Your task to perform on an android device: View the shopping cart on ebay. Search for "macbook pro 13 inch" on ebay, select the first entry, and add it to the cart. Image 0: 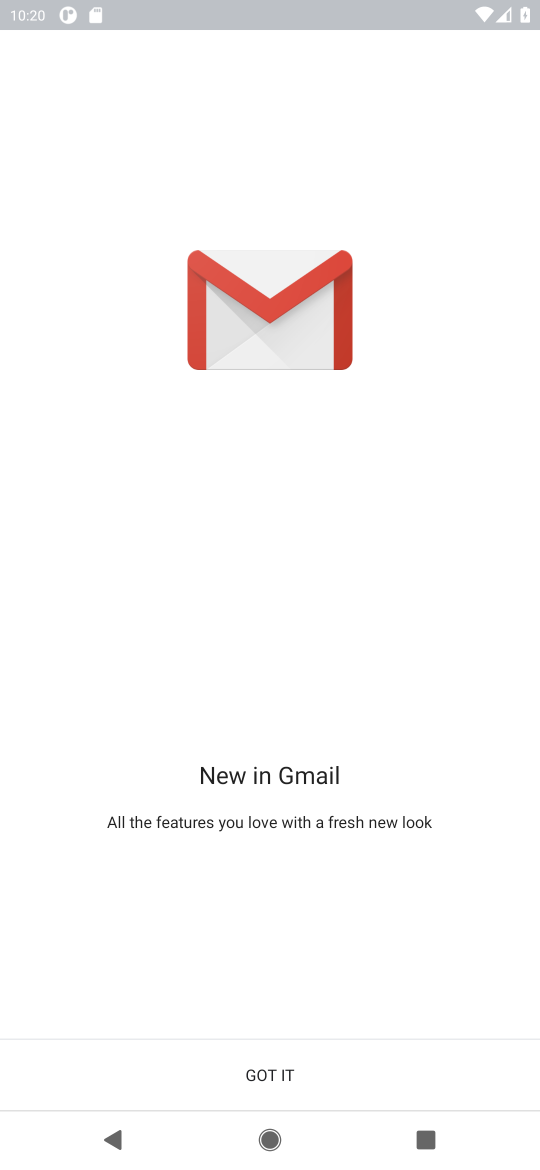
Step 0: press home button
Your task to perform on an android device: View the shopping cart on ebay. Search for "macbook pro 13 inch" on ebay, select the first entry, and add it to the cart. Image 1: 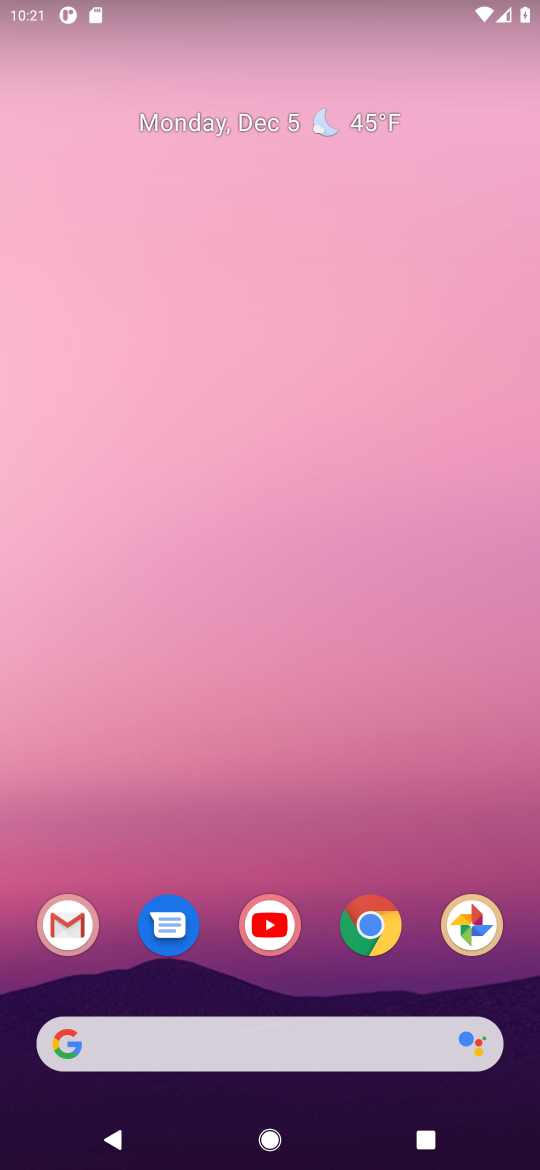
Step 1: click (372, 926)
Your task to perform on an android device: View the shopping cart on ebay. Search for "macbook pro 13 inch" on ebay, select the first entry, and add it to the cart. Image 2: 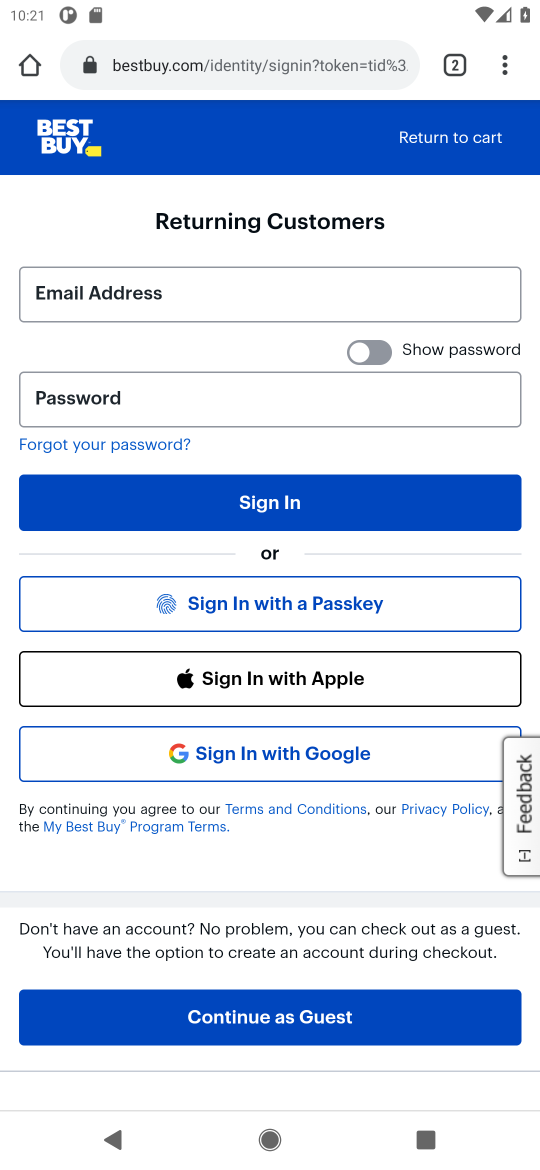
Step 2: click (246, 60)
Your task to perform on an android device: View the shopping cart on ebay. Search for "macbook pro 13 inch" on ebay, select the first entry, and add it to the cart. Image 3: 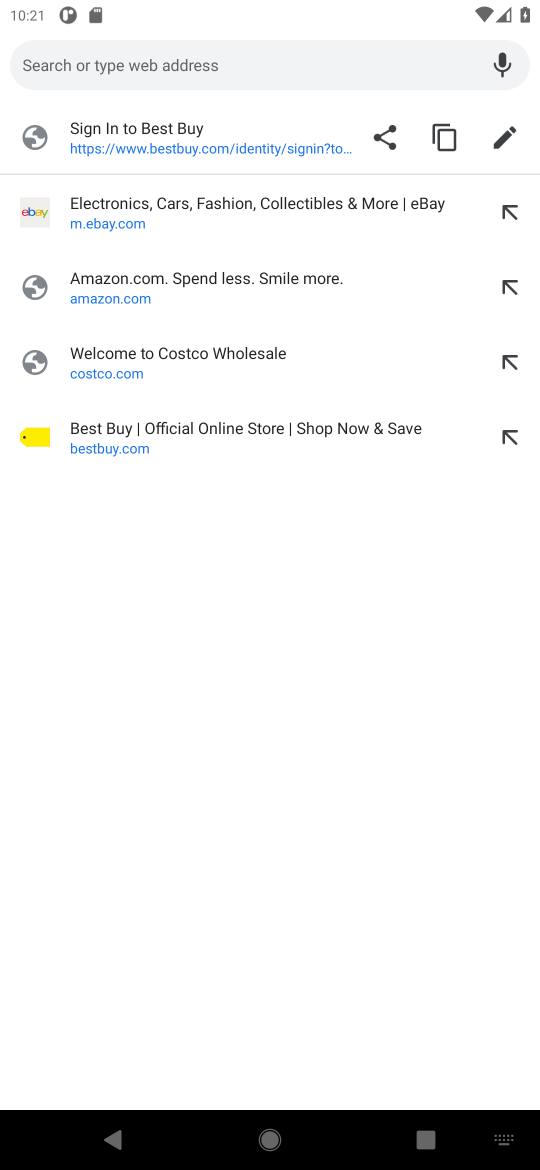
Step 3: click (114, 212)
Your task to perform on an android device: View the shopping cart on ebay. Search for "macbook pro 13 inch" on ebay, select the first entry, and add it to the cart. Image 4: 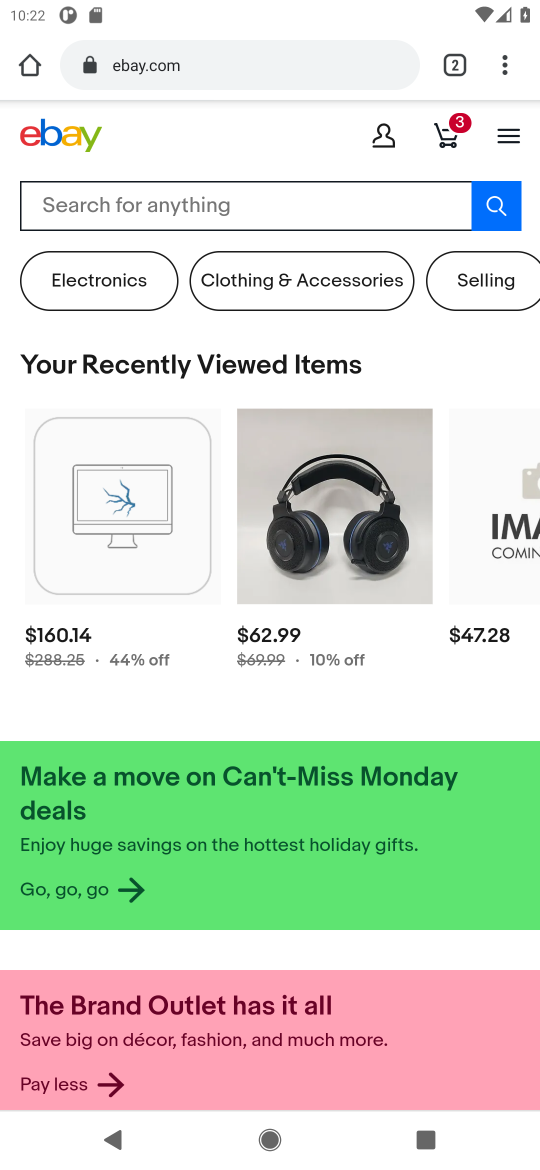
Step 4: click (449, 126)
Your task to perform on an android device: View the shopping cart on ebay. Search for "macbook pro 13 inch" on ebay, select the first entry, and add it to the cart. Image 5: 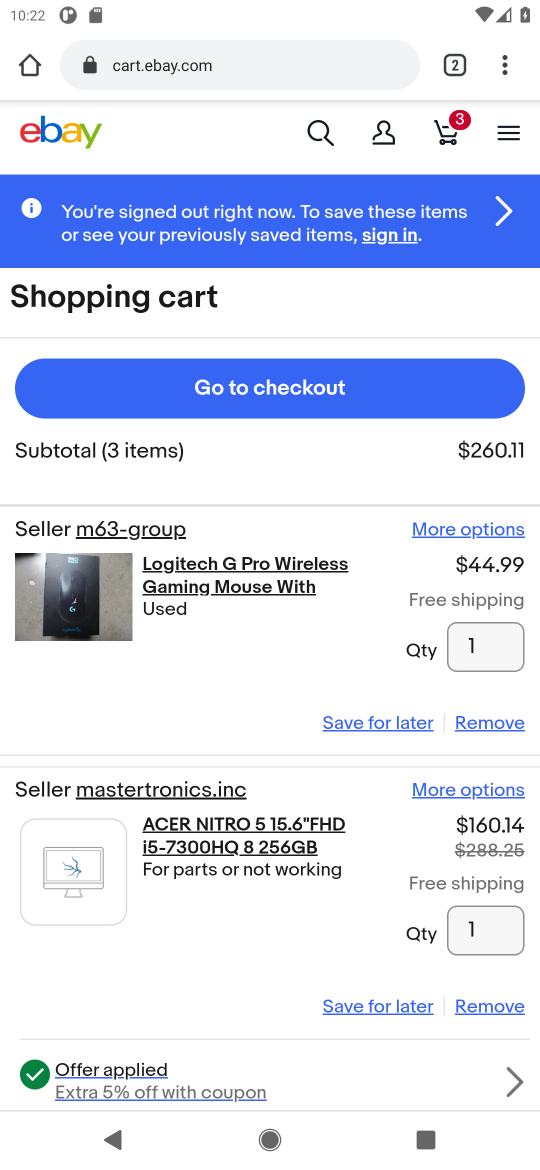
Step 5: click (317, 135)
Your task to perform on an android device: View the shopping cart on ebay. Search for "macbook pro 13 inch" on ebay, select the first entry, and add it to the cart. Image 6: 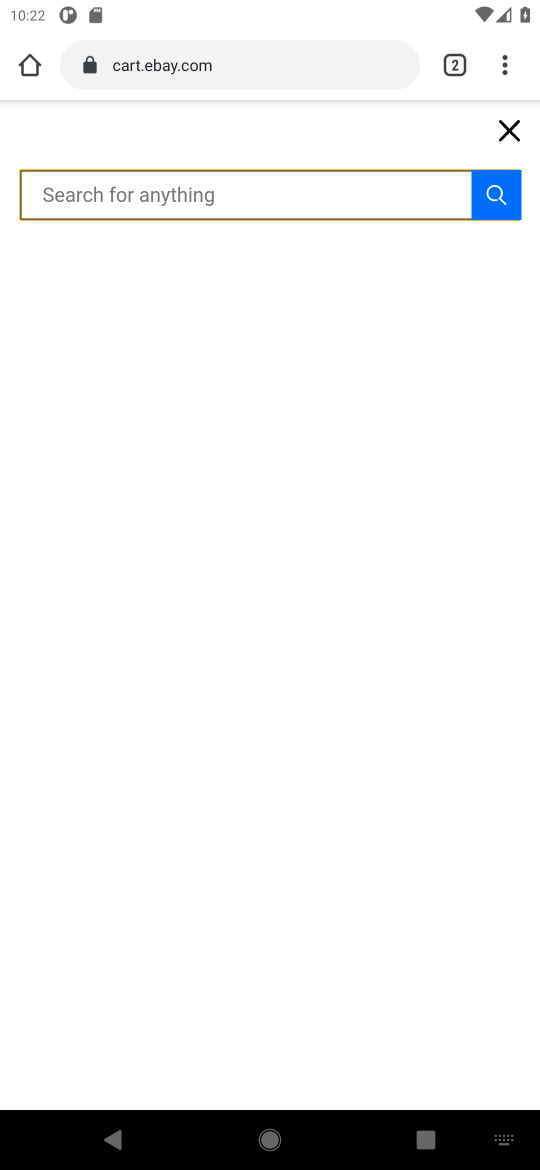
Step 6: type "macbook pro 13 inch"
Your task to perform on an android device: View the shopping cart on ebay. Search for "macbook pro 13 inch" on ebay, select the first entry, and add it to the cart. Image 7: 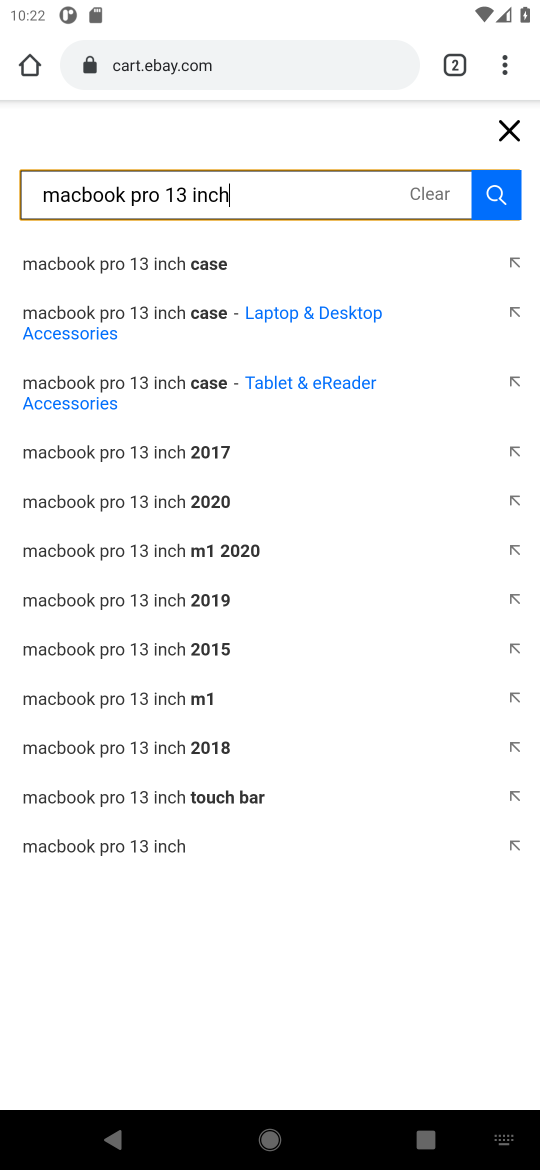
Step 7: click (140, 846)
Your task to perform on an android device: View the shopping cart on ebay. Search for "macbook pro 13 inch" on ebay, select the first entry, and add it to the cart. Image 8: 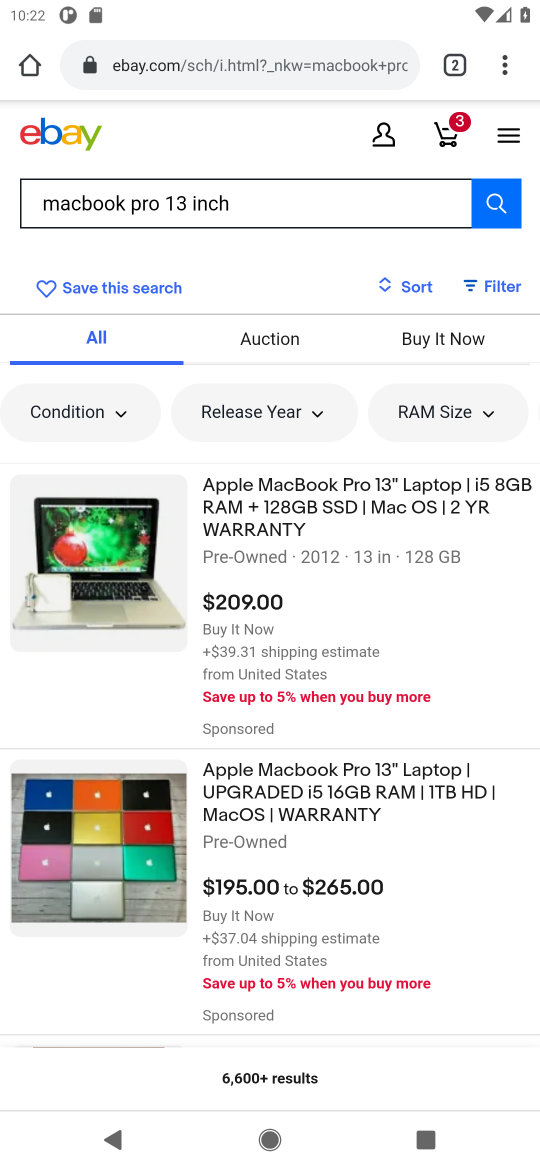
Step 8: click (254, 523)
Your task to perform on an android device: View the shopping cart on ebay. Search for "macbook pro 13 inch" on ebay, select the first entry, and add it to the cart. Image 9: 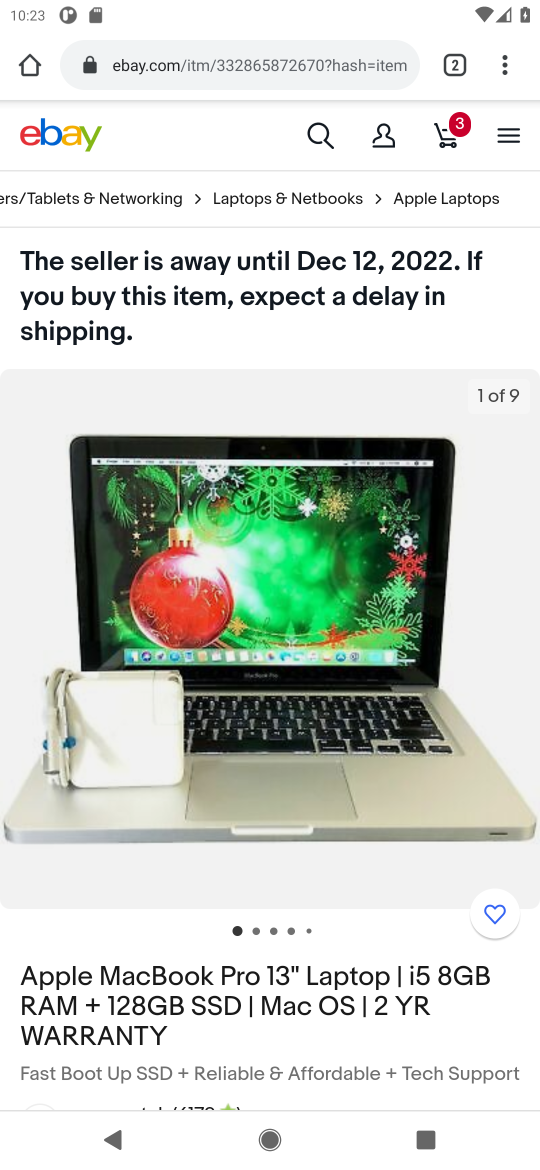
Step 9: drag from (226, 753) to (249, 422)
Your task to perform on an android device: View the shopping cart on ebay. Search for "macbook pro 13 inch" on ebay, select the first entry, and add it to the cart. Image 10: 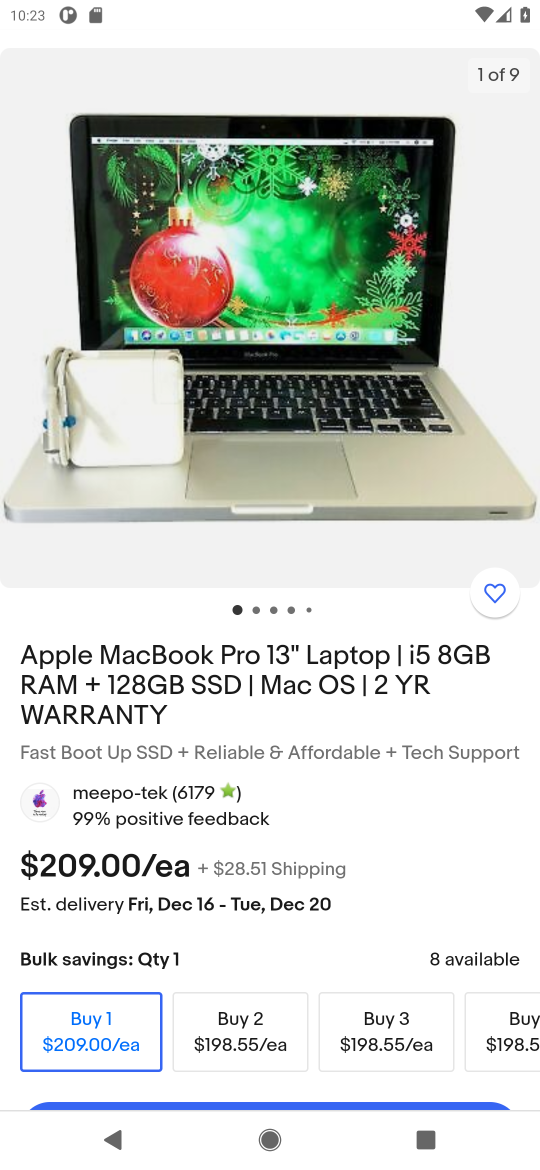
Step 10: drag from (269, 710) to (259, 381)
Your task to perform on an android device: View the shopping cart on ebay. Search for "macbook pro 13 inch" on ebay, select the first entry, and add it to the cart. Image 11: 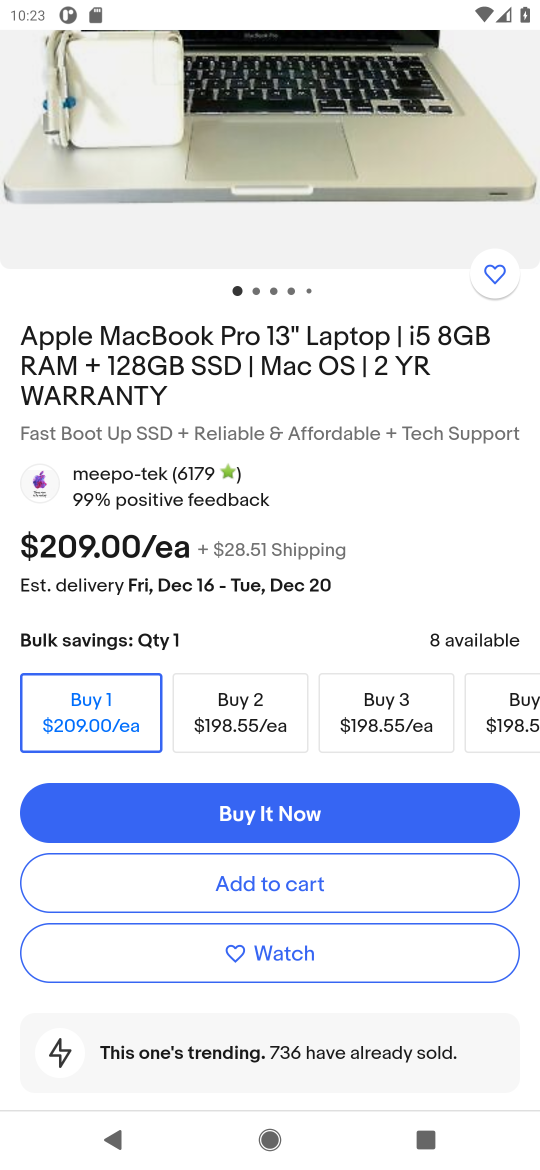
Step 11: click (263, 887)
Your task to perform on an android device: View the shopping cart on ebay. Search for "macbook pro 13 inch" on ebay, select the first entry, and add it to the cart. Image 12: 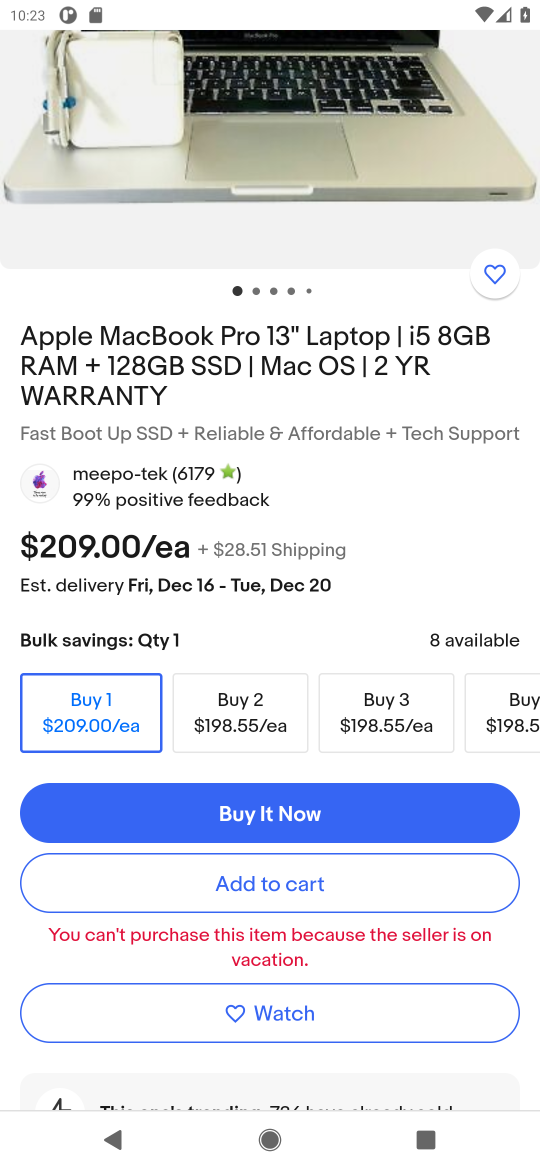
Step 12: task complete